Your task to perform on an android device: change the clock display to digital Image 0: 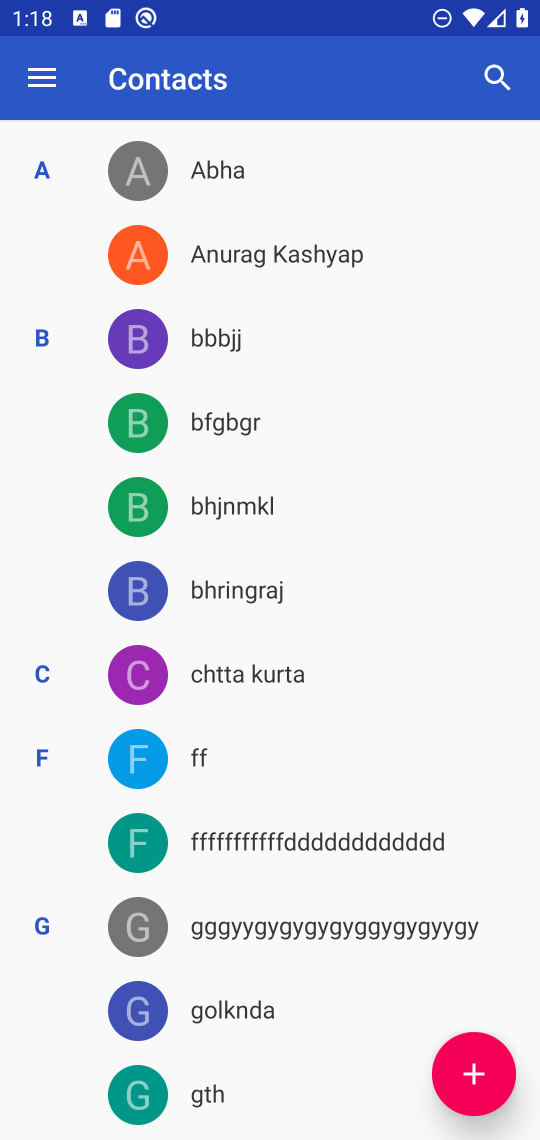
Step 0: press home button
Your task to perform on an android device: change the clock display to digital Image 1: 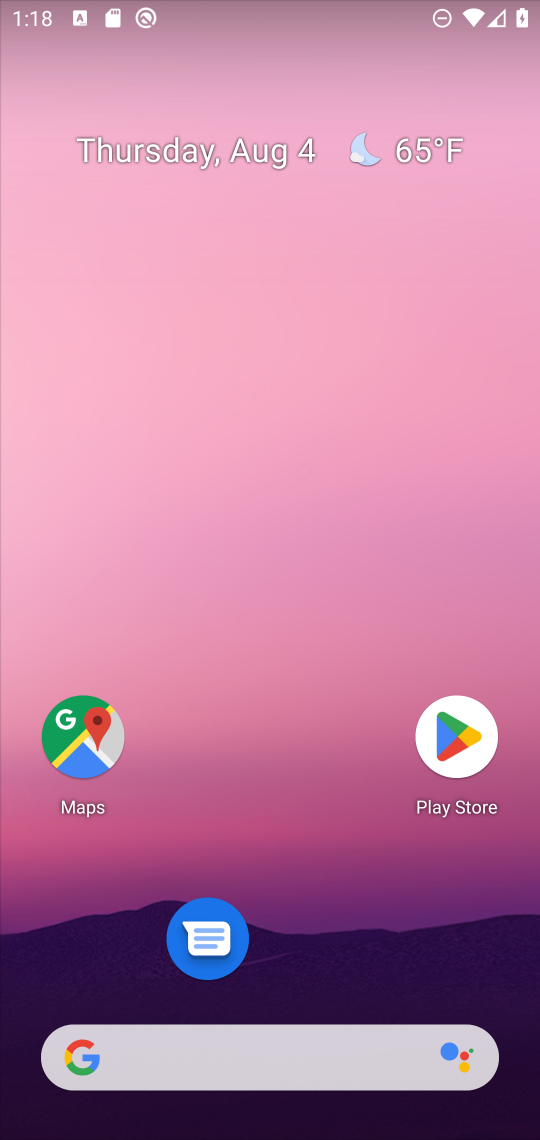
Step 1: drag from (271, 1042) to (327, 247)
Your task to perform on an android device: change the clock display to digital Image 2: 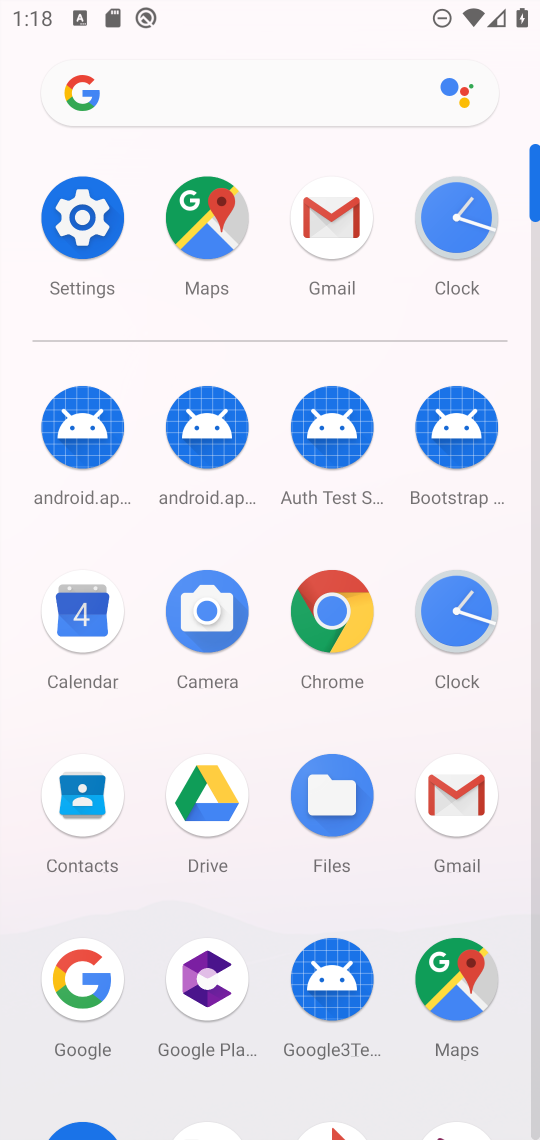
Step 2: click (430, 629)
Your task to perform on an android device: change the clock display to digital Image 3: 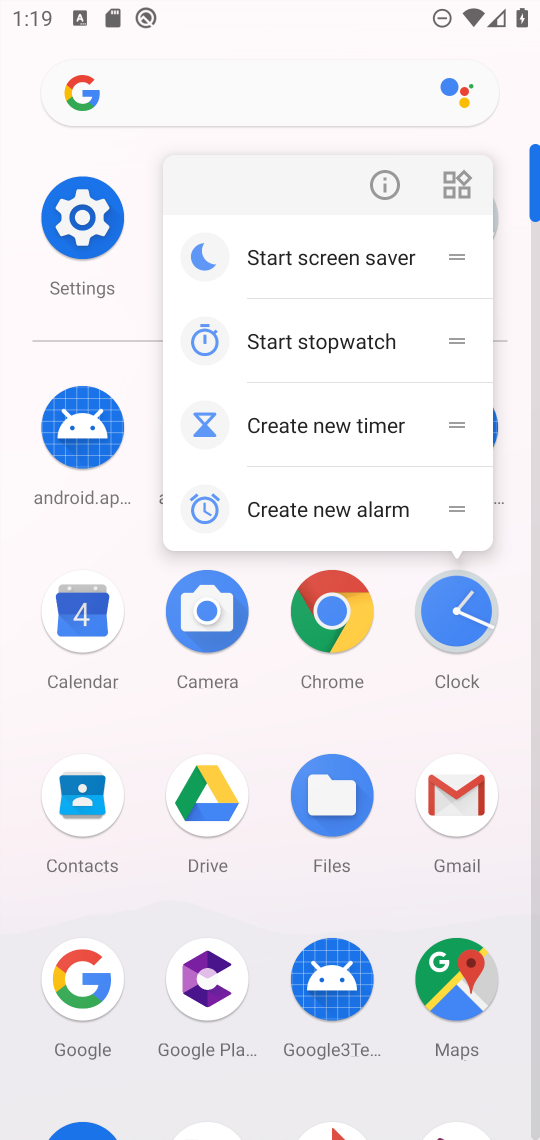
Step 3: click (458, 620)
Your task to perform on an android device: change the clock display to digital Image 4: 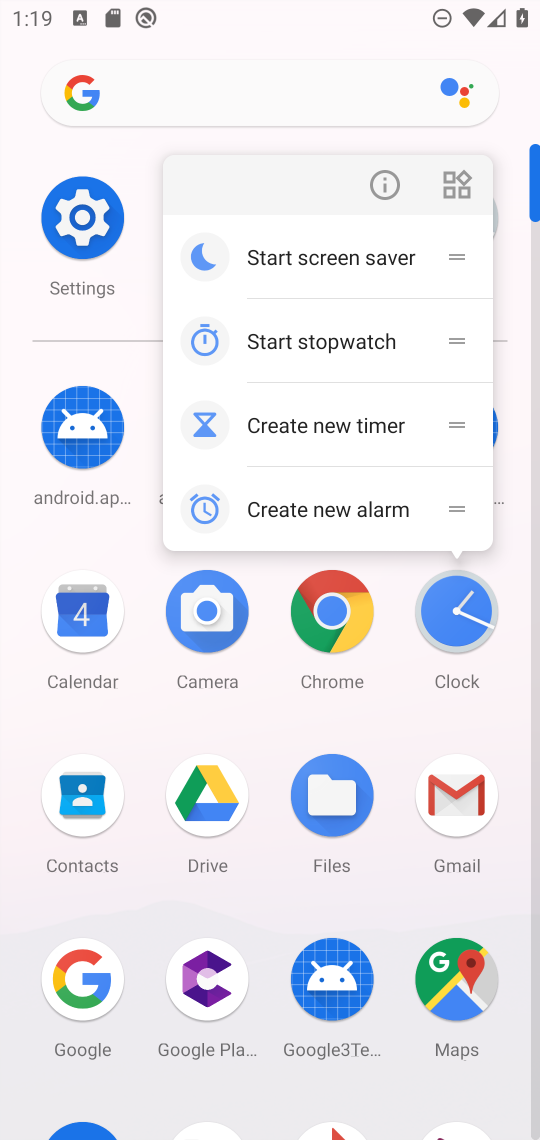
Step 4: click (458, 625)
Your task to perform on an android device: change the clock display to digital Image 5: 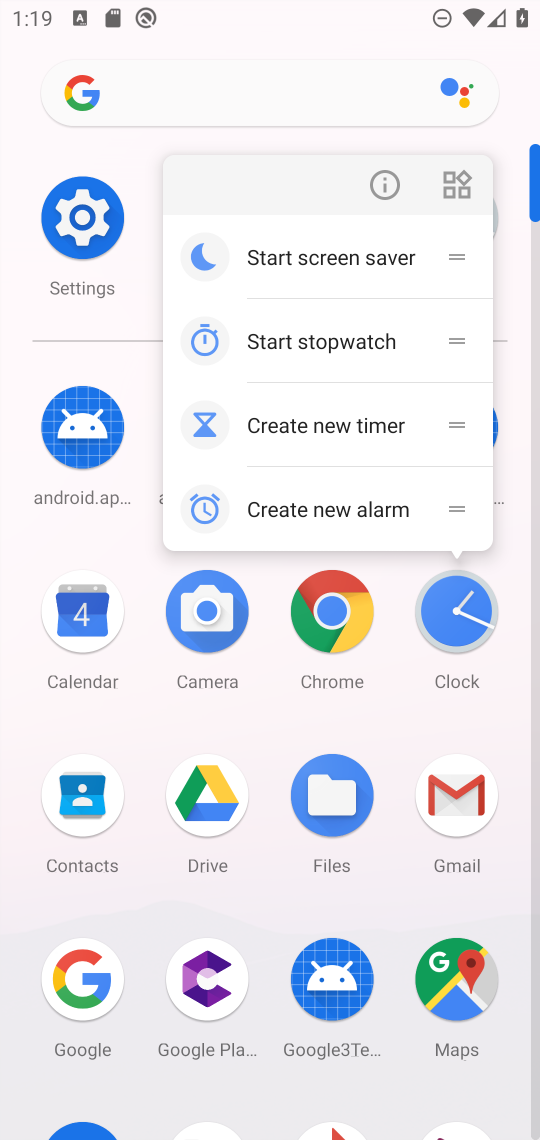
Step 5: click (458, 656)
Your task to perform on an android device: change the clock display to digital Image 6: 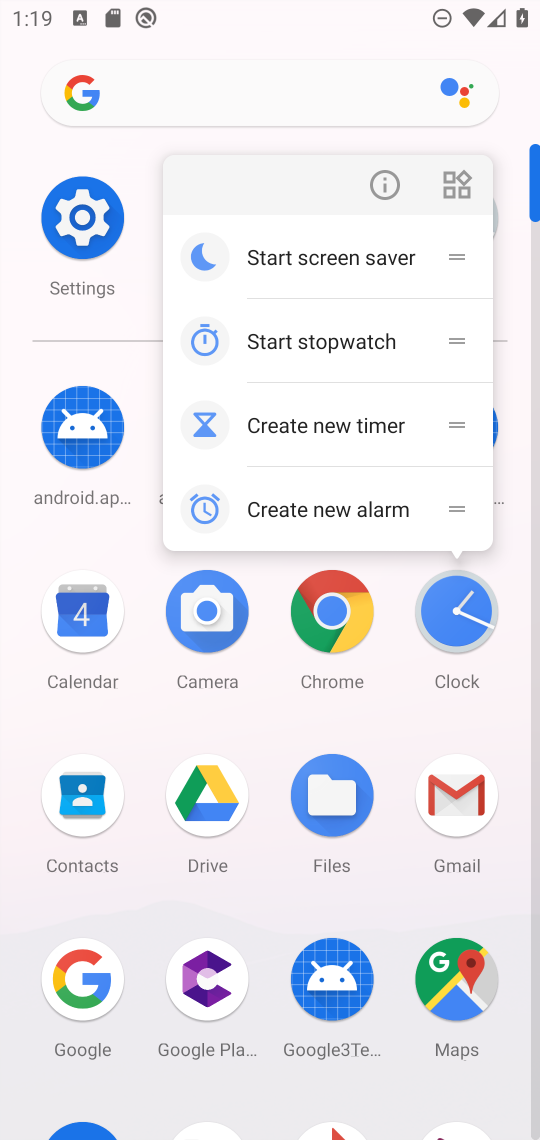
Step 6: click (458, 656)
Your task to perform on an android device: change the clock display to digital Image 7: 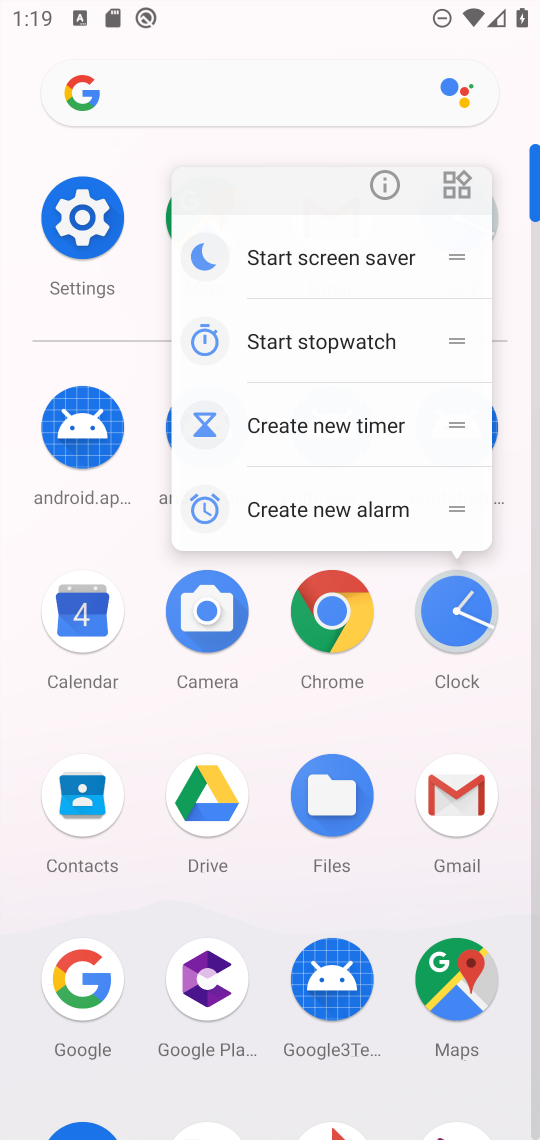
Step 7: click (458, 656)
Your task to perform on an android device: change the clock display to digital Image 8: 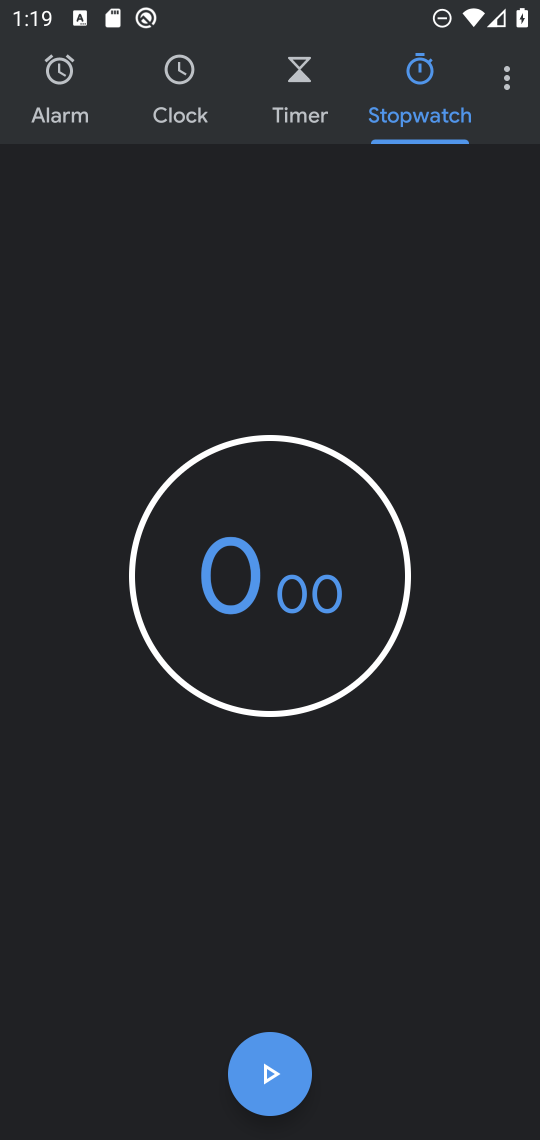
Step 8: click (510, 68)
Your task to perform on an android device: change the clock display to digital Image 9: 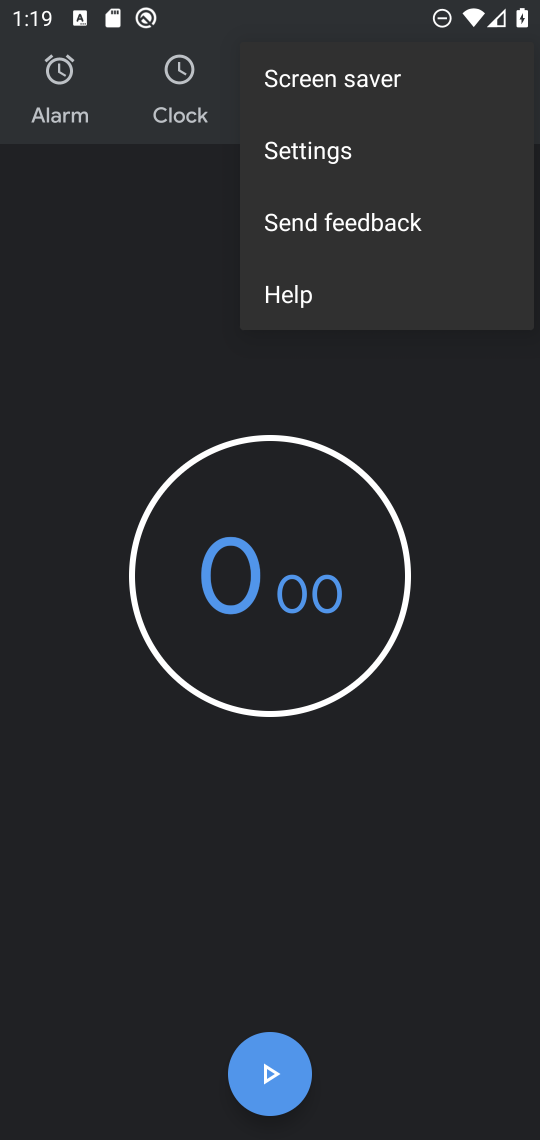
Step 9: click (355, 153)
Your task to perform on an android device: change the clock display to digital Image 10: 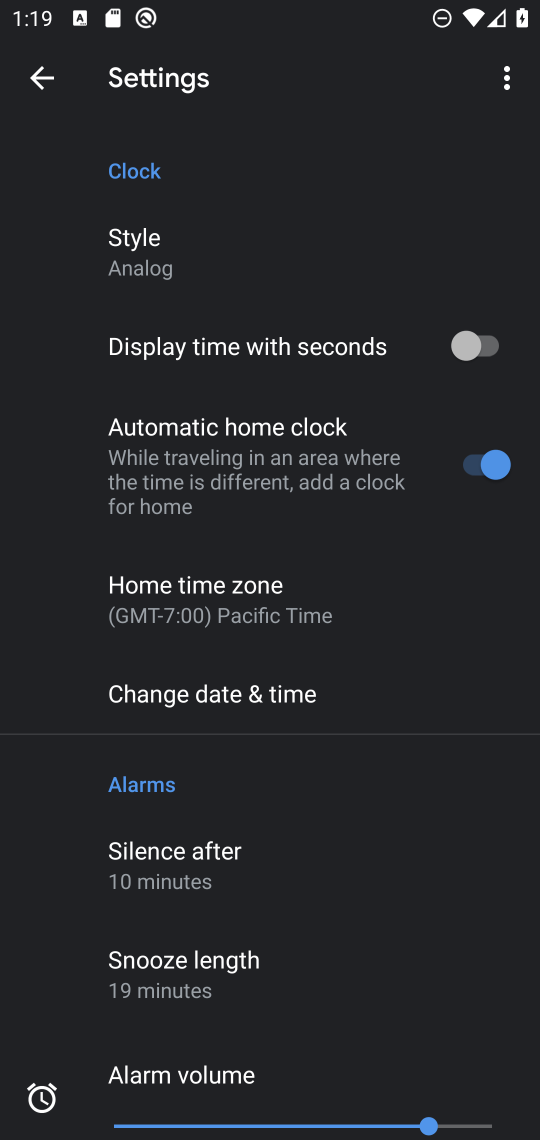
Step 10: click (214, 243)
Your task to perform on an android device: change the clock display to digital Image 11: 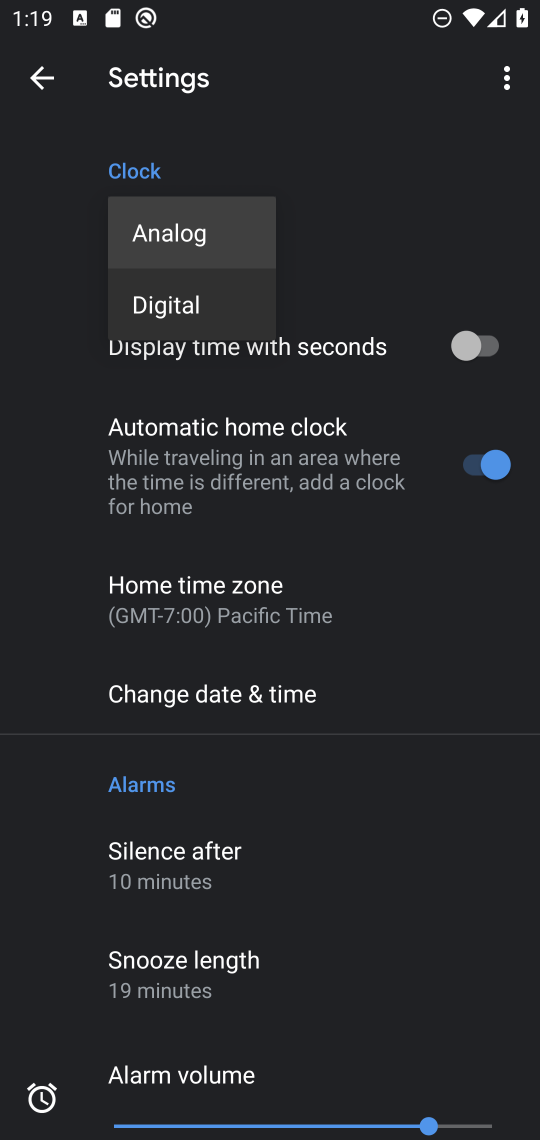
Step 11: click (200, 312)
Your task to perform on an android device: change the clock display to digital Image 12: 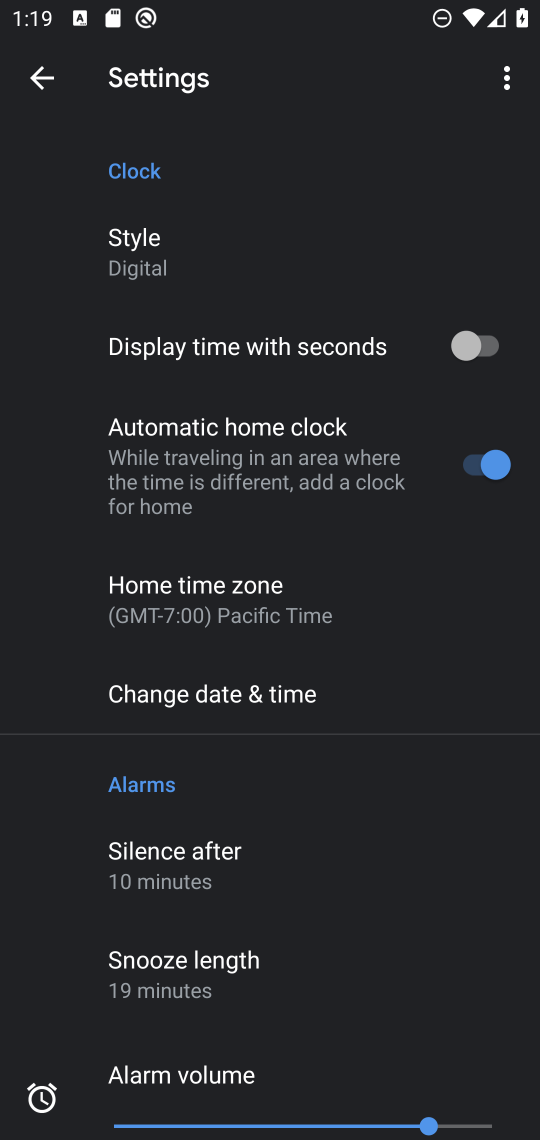
Step 12: task complete